Your task to perform on an android device: change alarm snooze length Image 0: 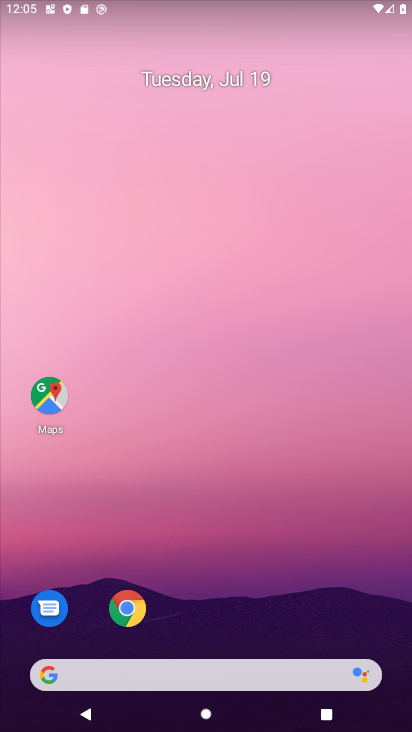
Step 0: drag from (252, 561) to (299, 161)
Your task to perform on an android device: change alarm snooze length Image 1: 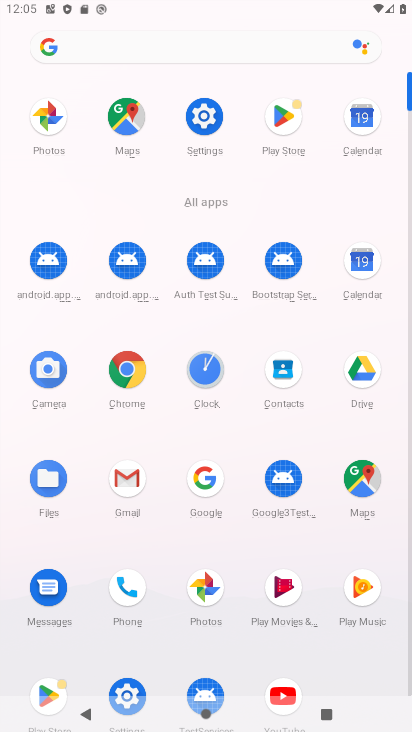
Step 1: click (190, 366)
Your task to perform on an android device: change alarm snooze length Image 2: 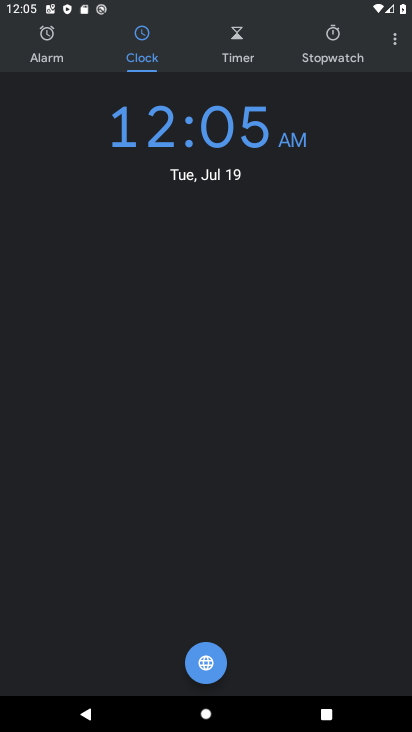
Step 2: click (390, 36)
Your task to perform on an android device: change alarm snooze length Image 3: 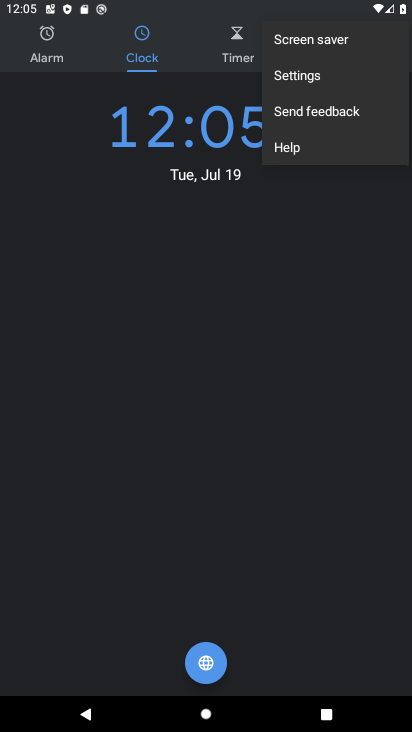
Step 3: click (350, 81)
Your task to perform on an android device: change alarm snooze length Image 4: 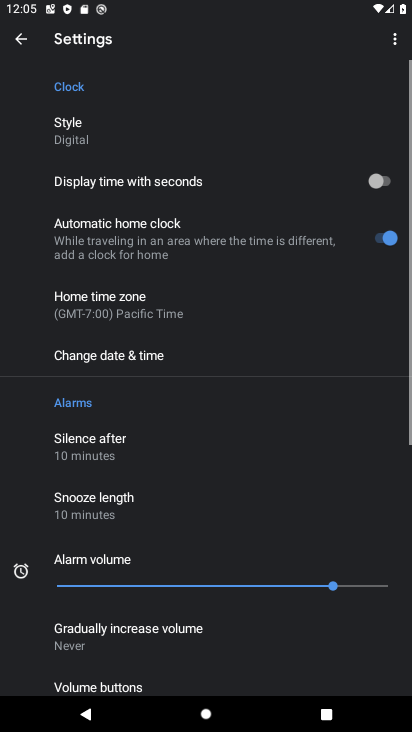
Step 4: drag from (249, 623) to (287, 171)
Your task to perform on an android device: change alarm snooze length Image 5: 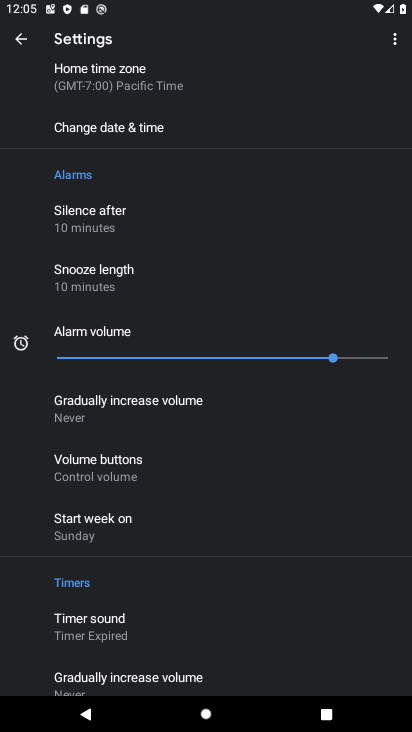
Step 5: click (185, 274)
Your task to perform on an android device: change alarm snooze length Image 6: 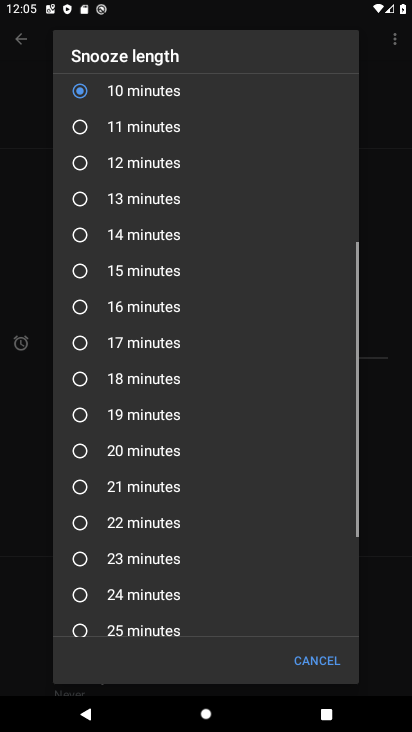
Step 6: click (137, 442)
Your task to perform on an android device: change alarm snooze length Image 7: 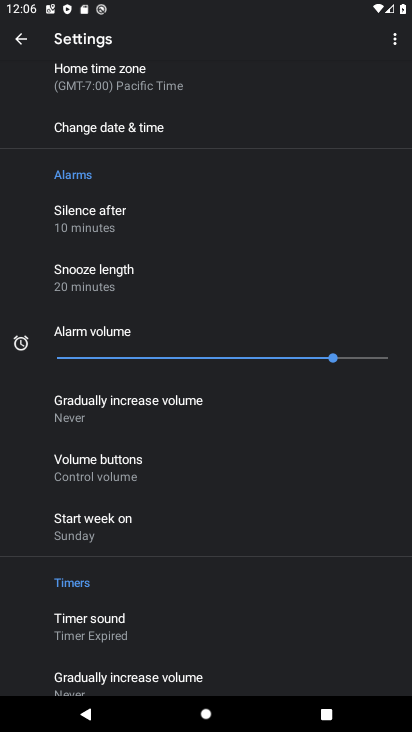
Step 7: task complete